Your task to perform on an android device: Is it going to rain today? Image 0: 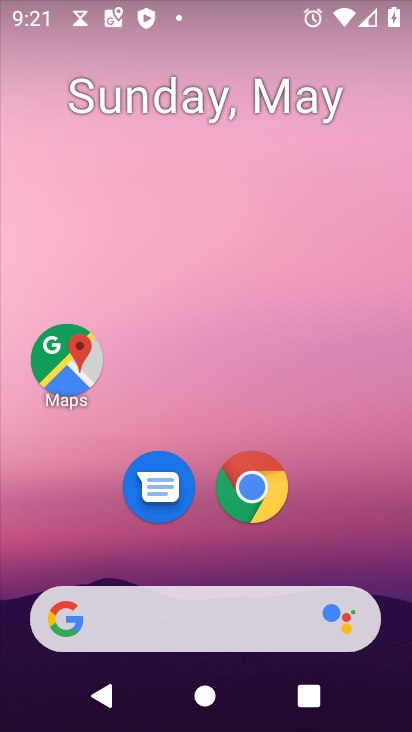
Step 0: drag from (380, 494) to (410, 131)
Your task to perform on an android device: Is it going to rain today? Image 1: 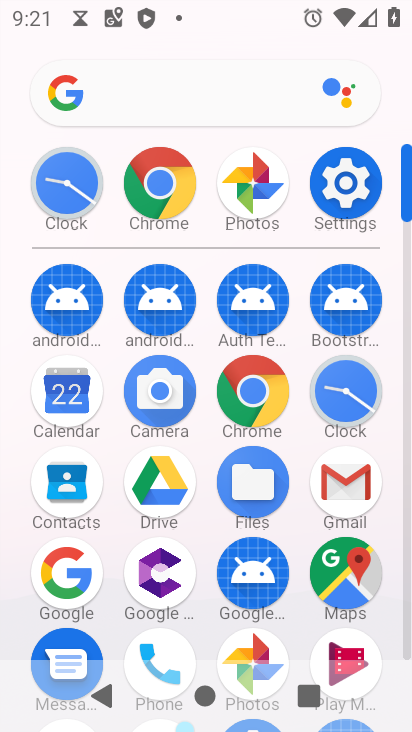
Step 1: click (172, 189)
Your task to perform on an android device: Is it going to rain today? Image 2: 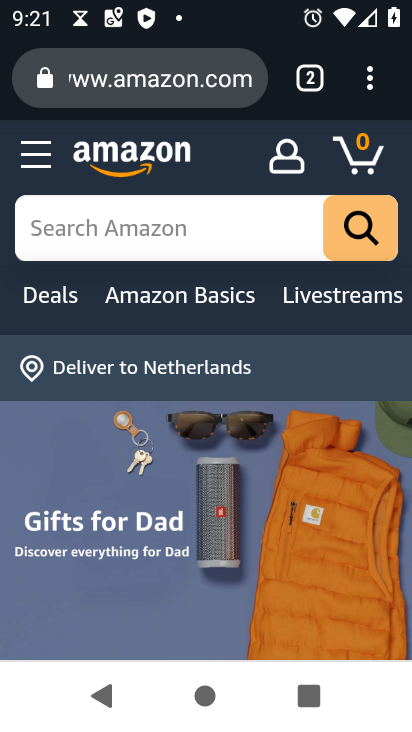
Step 2: press home button
Your task to perform on an android device: Is it going to rain today? Image 3: 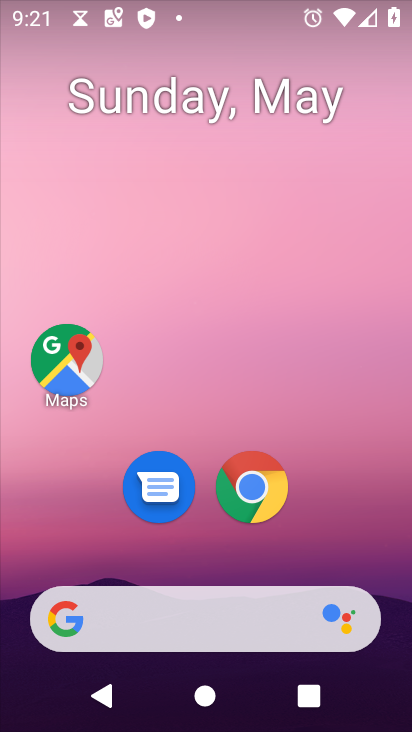
Step 3: click (65, 626)
Your task to perform on an android device: Is it going to rain today? Image 4: 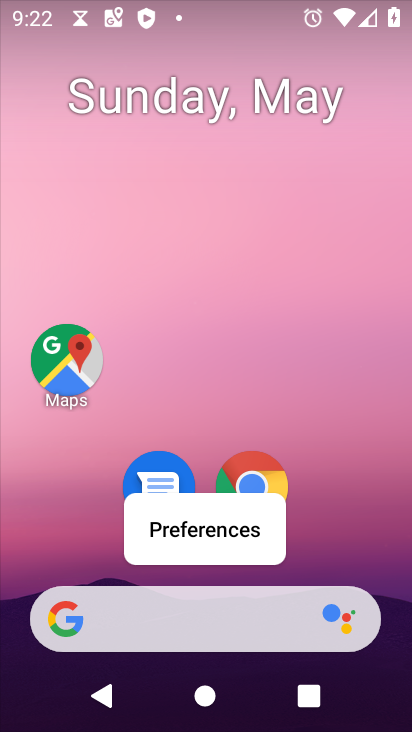
Step 4: click (65, 626)
Your task to perform on an android device: Is it going to rain today? Image 5: 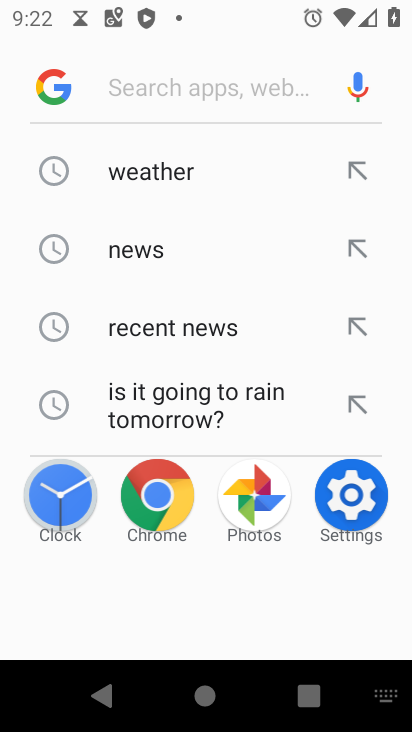
Step 5: click (78, 106)
Your task to perform on an android device: Is it going to rain today? Image 6: 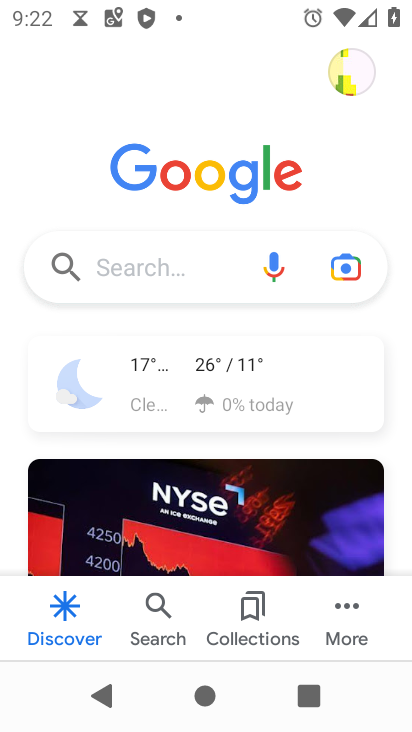
Step 6: click (200, 366)
Your task to perform on an android device: Is it going to rain today? Image 7: 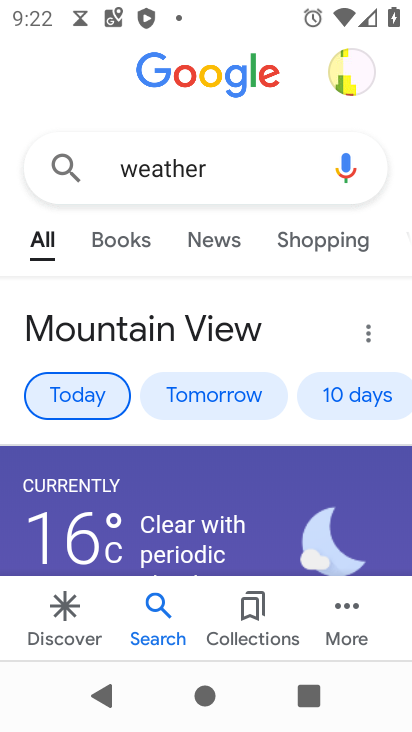
Step 7: task complete